Your task to perform on an android device: uninstall "The Home Depot" Image 0: 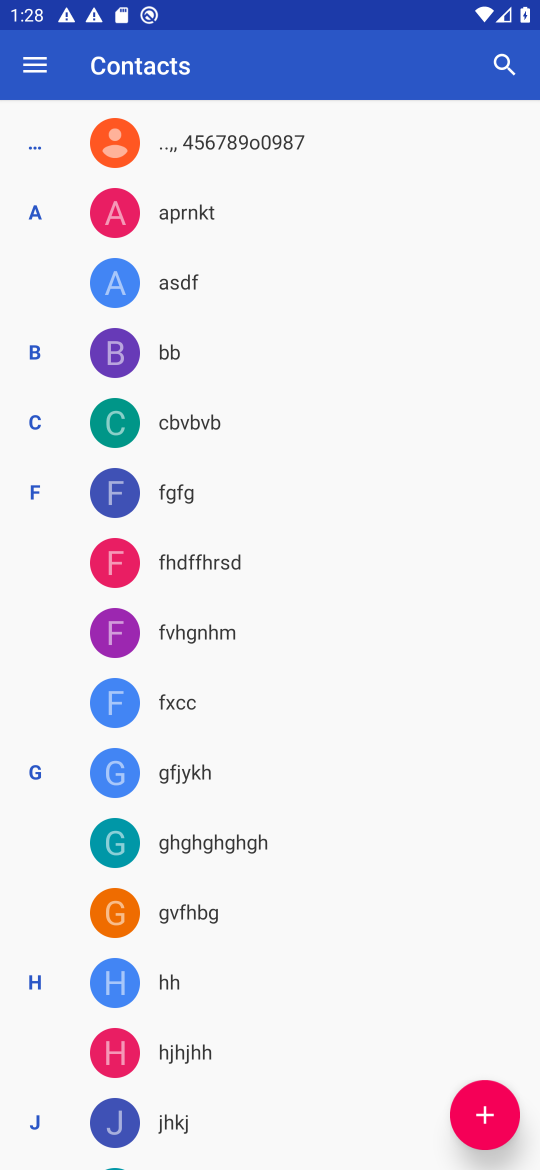
Step 0: press home button
Your task to perform on an android device: uninstall "The Home Depot" Image 1: 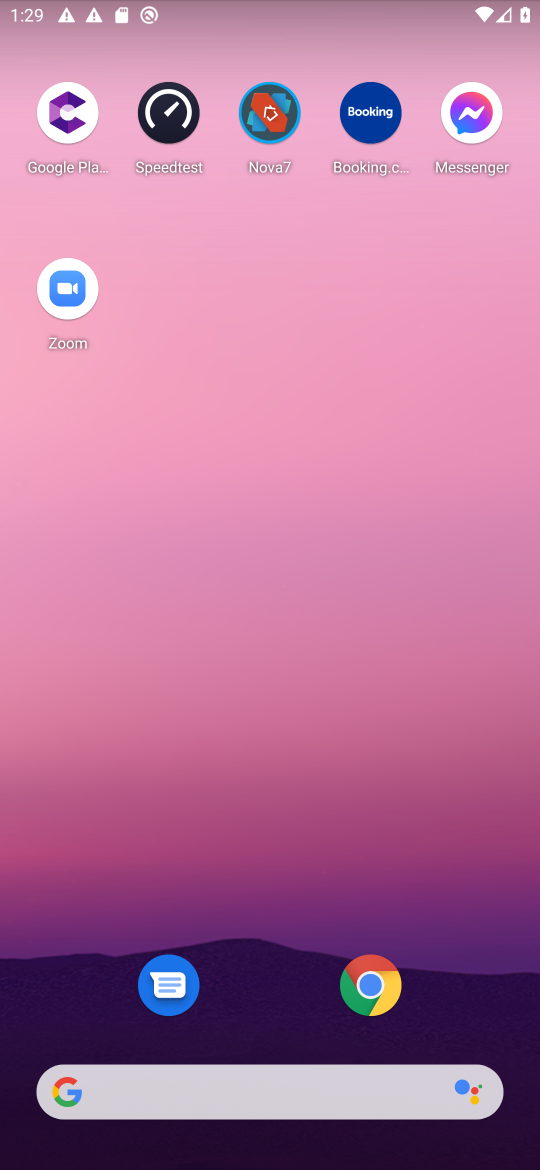
Step 1: drag from (275, 1157) to (249, 232)
Your task to perform on an android device: uninstall "The Home Depot" Image 2: 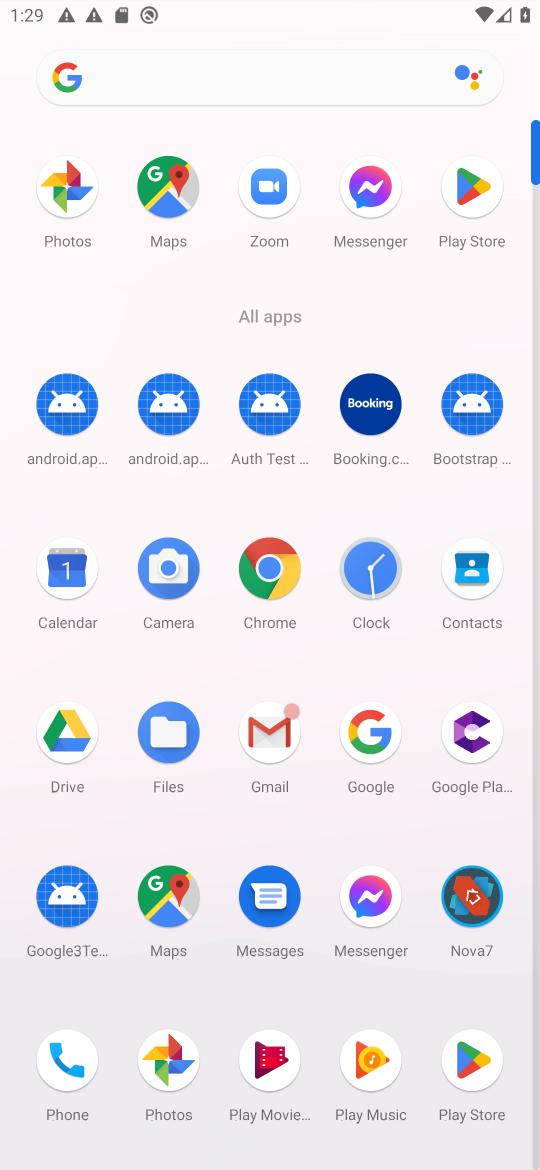
Step 2: click (477, 185)
Your task to perform on an android device: uninstall "The Home Depot" Image 3: 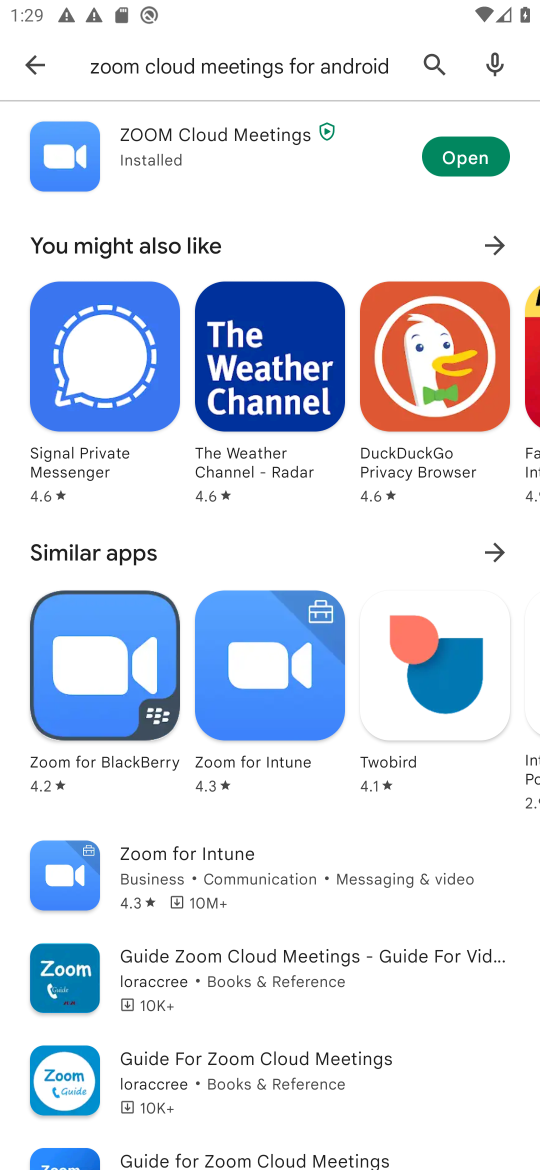
Step 3: click (434, 60)
Your task to perform on an android device: uninstall "The Home Depot" Image 4: 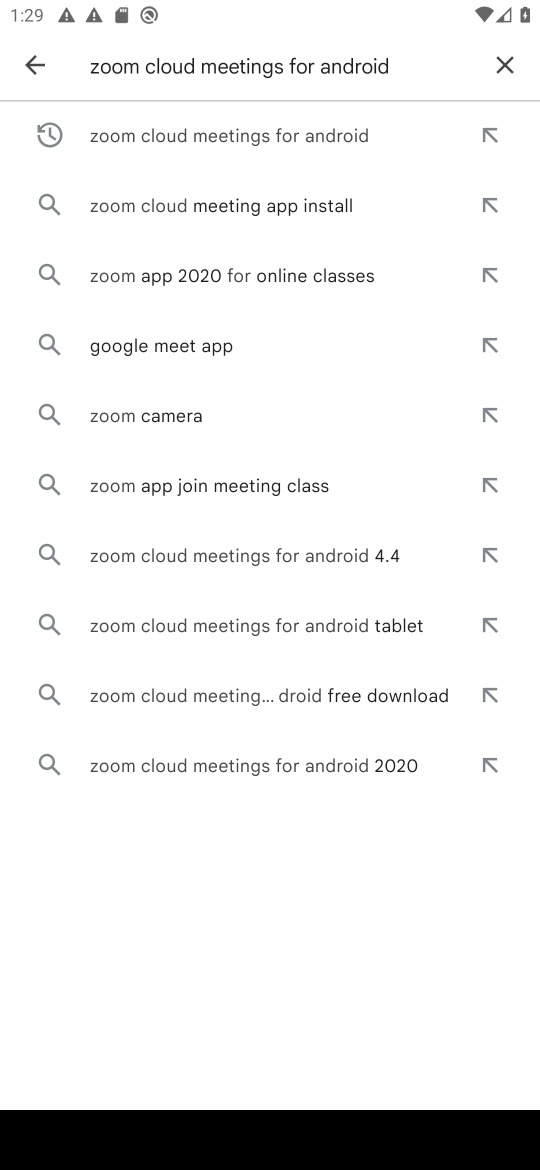
Step 4: click (502, 53)
Your task to perform on an android device: uninstall "The Home Depot" Image 5: 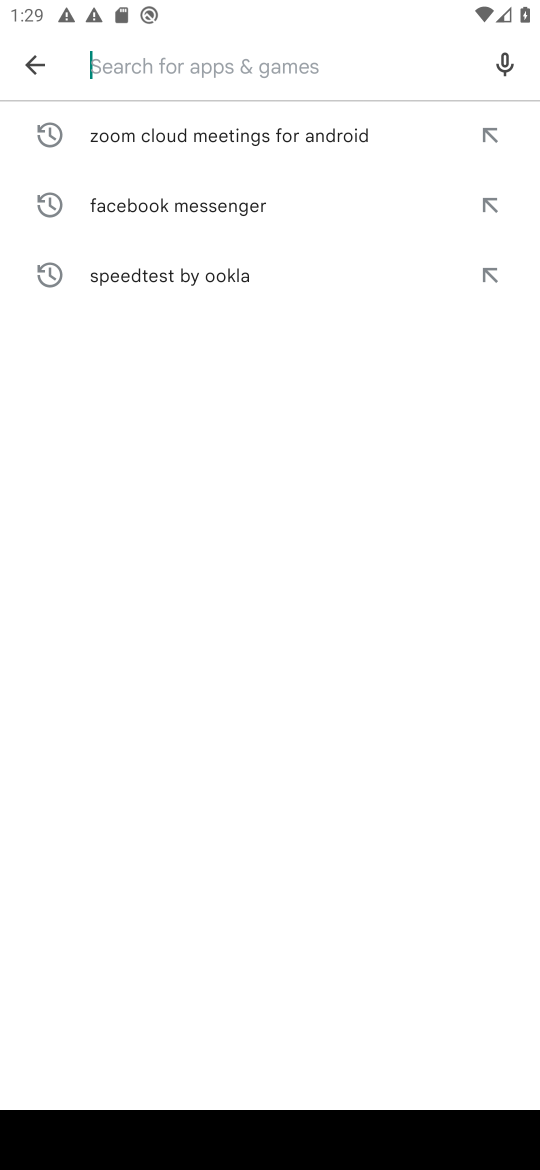
Step 5: type "The Home Depot"
Your task to perform on an android device: uninstall "The Home Depot" Image 6: 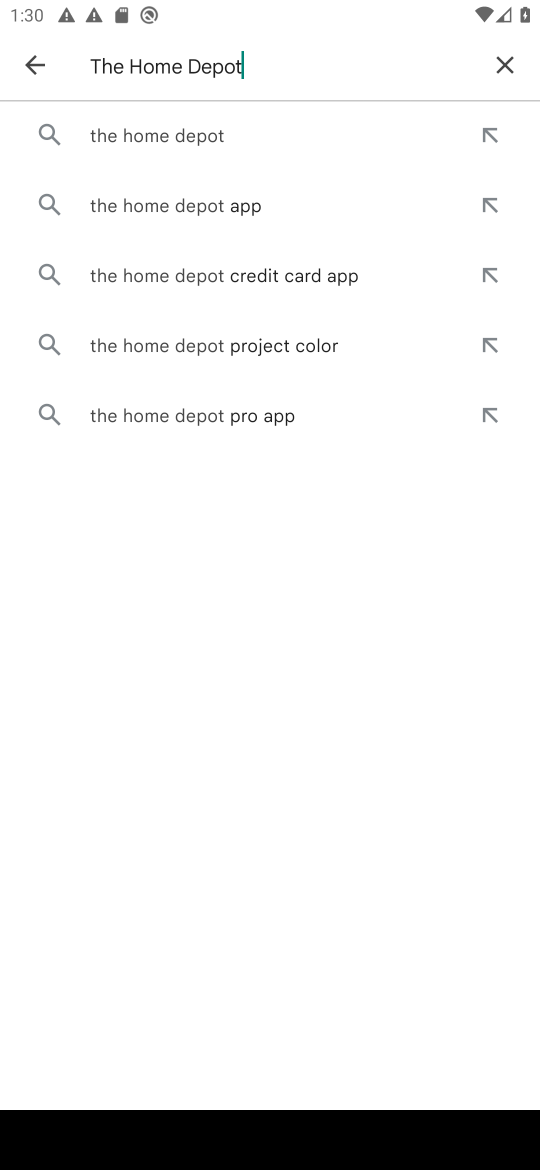
Step 6: click (200, 134)
Your task to perform on an android device: uninstall "The Home Depot" Image 7: 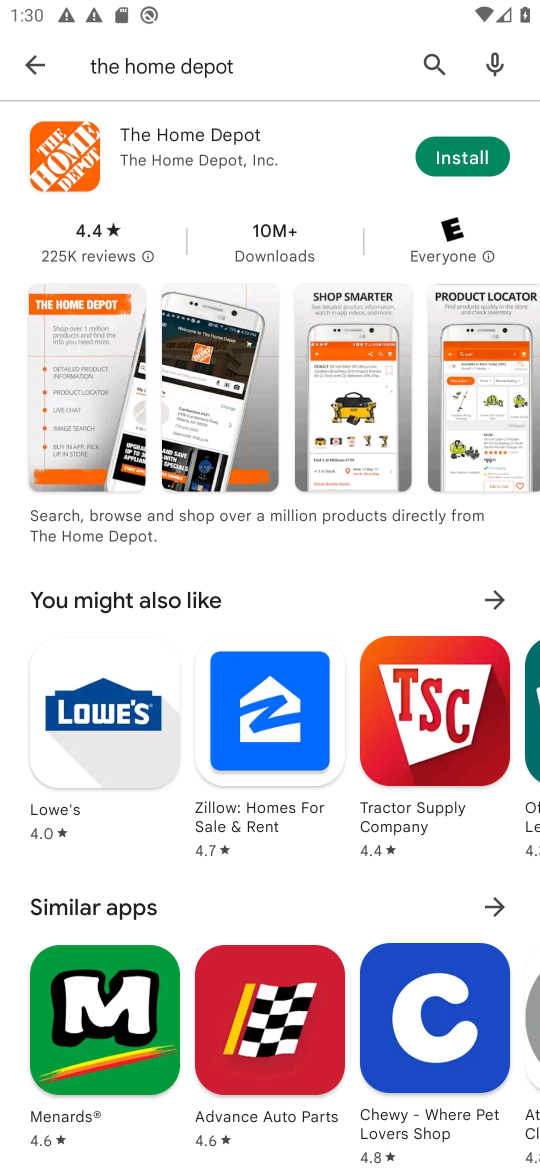
Step 7: task complete